Your task to perform on an android device: change notifications settings Image 0: 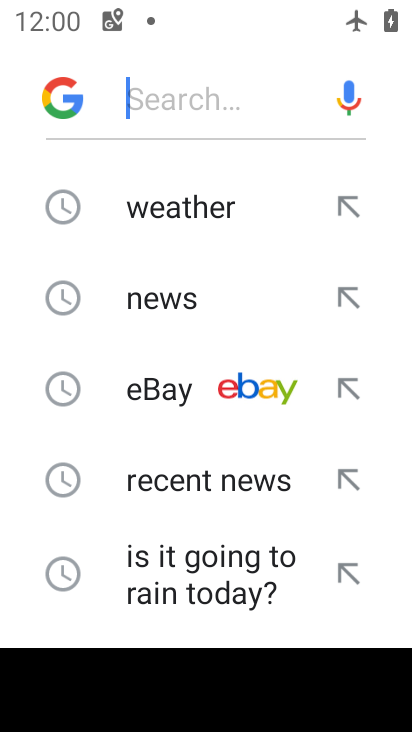
Step 0: press home button
Your task to perform on an android device: change notifications settings Image 1: 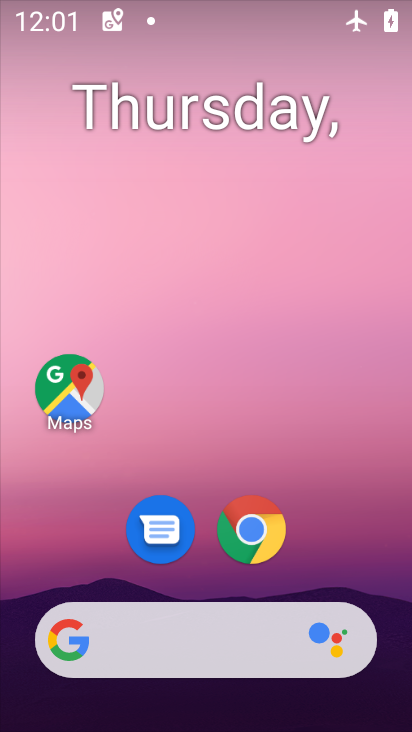
Step 1: drag from (394, 616) to (325, 142)
Your task to perform on an android device: change notifications settings Image 2: 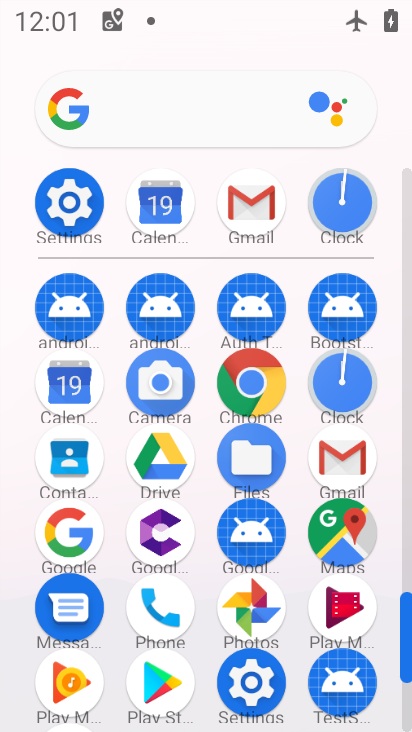
Step 2: click (408, 705)
Your task to perform on an android device: change notifications settings Image 3: 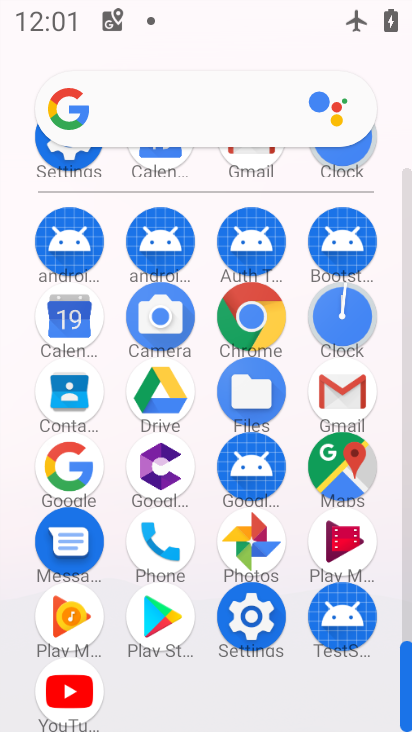
Step 3: click (249, 609)
Your task to perform on an android device: change notifications settings Image 4: 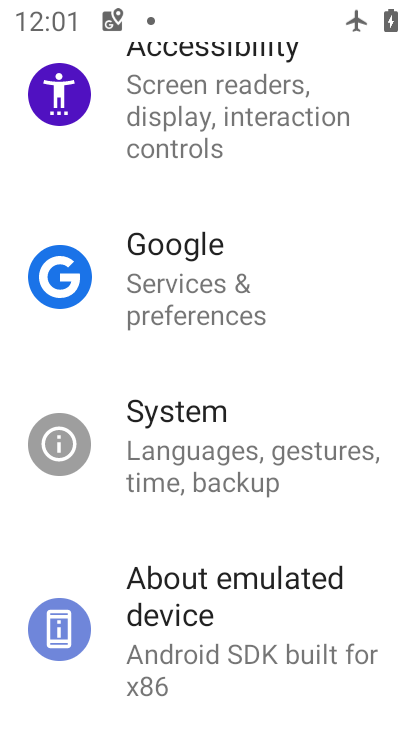
Step 4: drag from (344, 236) to (357, 593)
Your task to perform on an android device: change notifications settings Image 5: 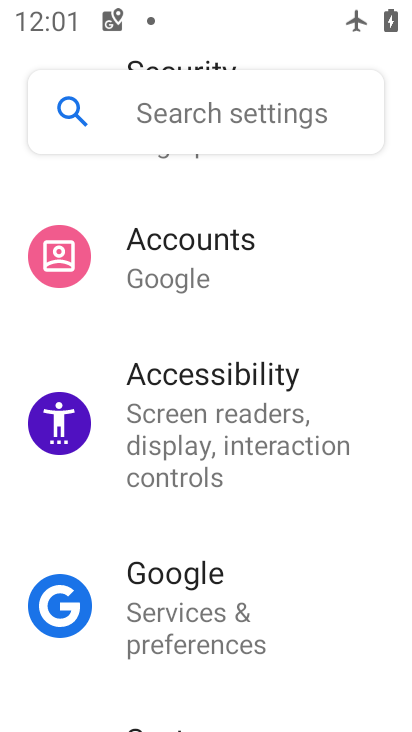
Step 5: drag from (372, 224) to (377, 591)
Your task to perform on an android device: change notifications settings Image 6: 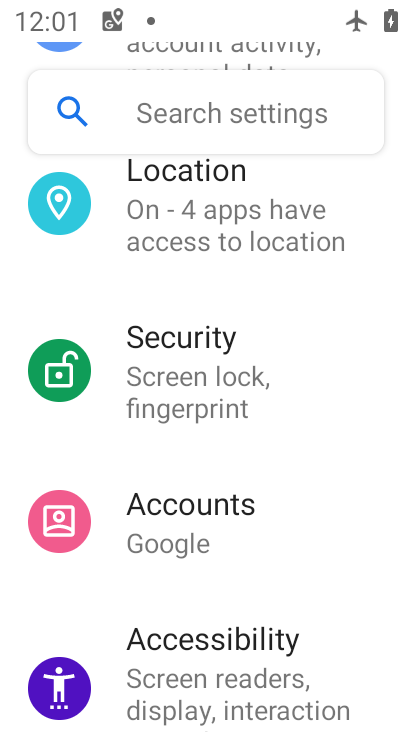
Step 6: drag from (357, 244) to (352, 569)
Your task to perform on an android device: change notifications settings Image 7: 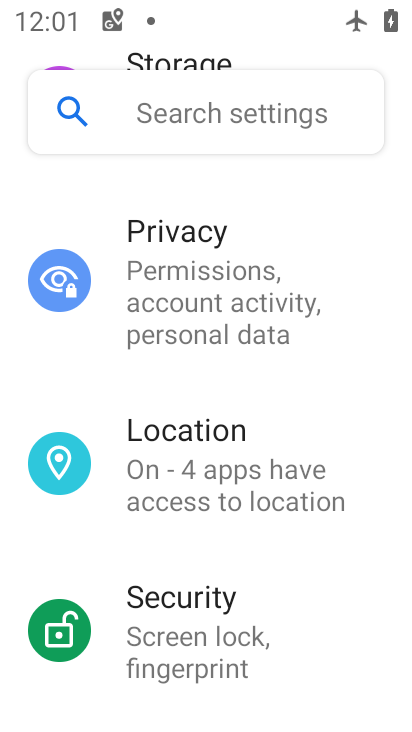
Step 7: drag from (335, 271) to (346, 578)
Your task to perform on an android device: change notifications settings Image 8: 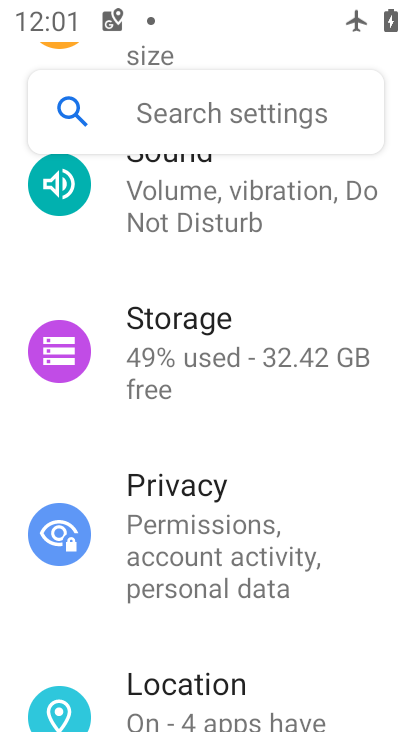
Step 8: drag from (342, 260) to (350, 595)
Your task to perform on an android device: change notifications settings Image 9: 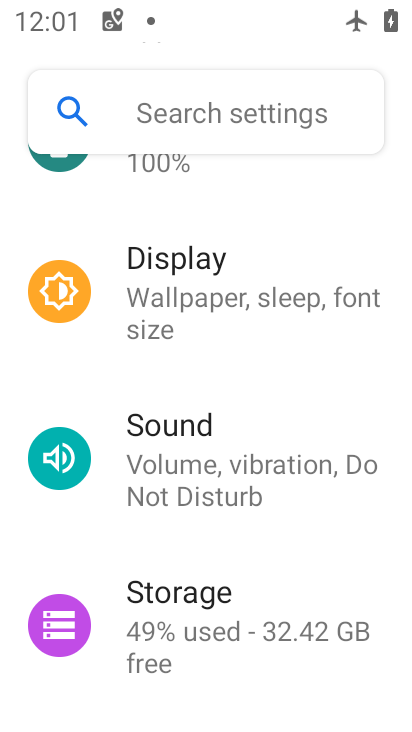
Step 9: drag from (341, 277) to (345, 595)
Your task to perform on an android device: change notifications settings Image 10: 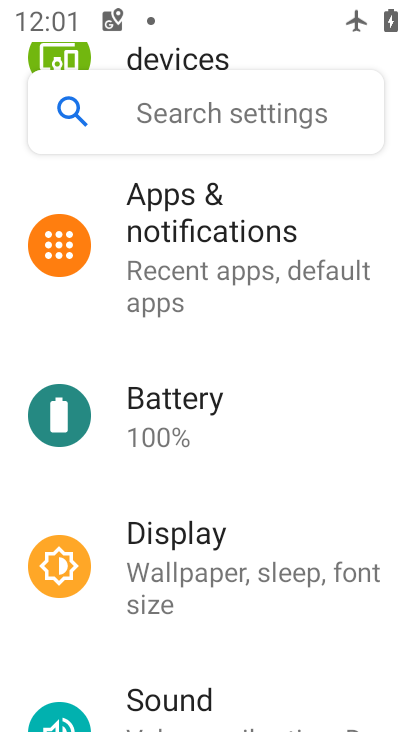
Step 10: click (186, 238)
Your task to perform on an android device: change notifications settings Image 11: 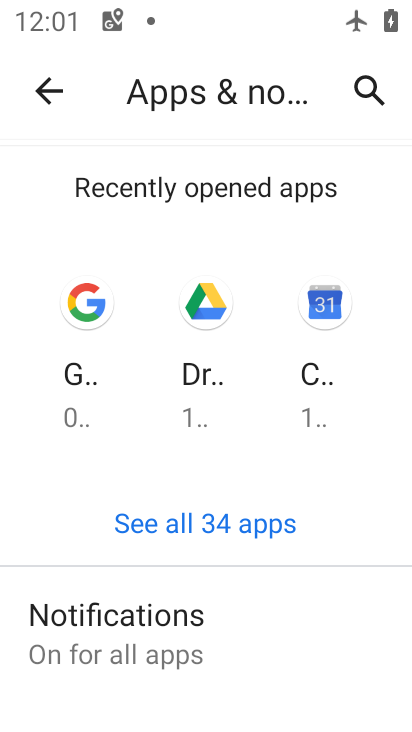
Step 11: click (145, 626)
Your task to perform on an android device: change notifications settings Image 12: 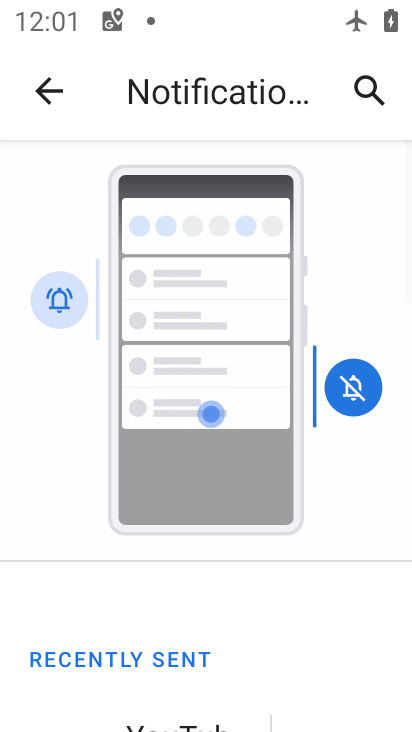
Step 12: drag from (335, 703) to (244, 164)
Your task to perform on an android device: change notifications settings Image 13: 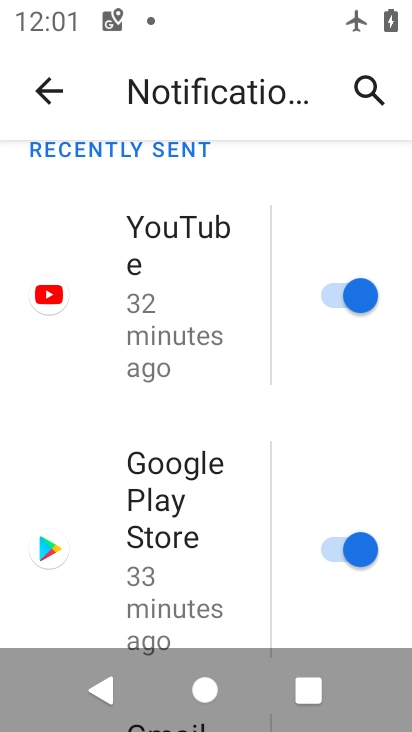
Step 13: drag from (263, 624) to (261, 142)
Your task to perform on an android device: change notifications settings Image 14: 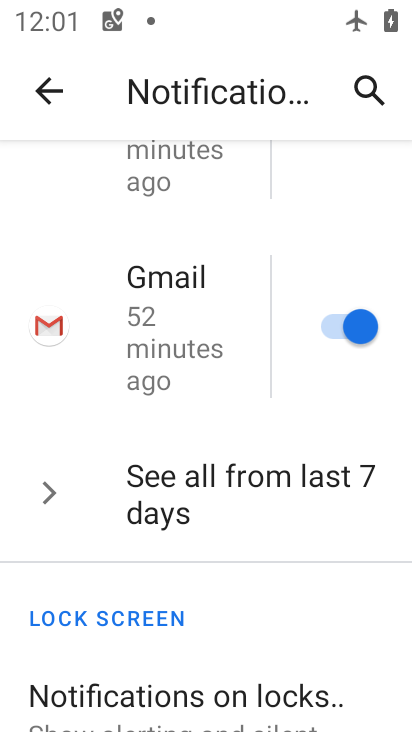
Step 14: drag from (269, 600) to (250, 184)
Your task to perform on an android device: change notifications settings Image 15: 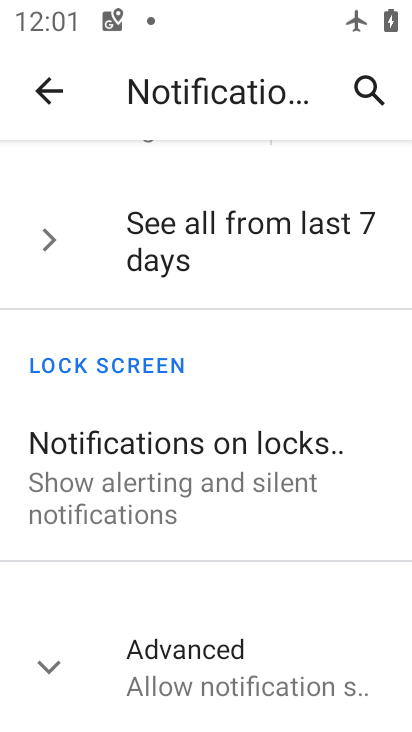
Step 15: click (45, 665)
Your task to perform on an android device: change notifications settings Image 16: 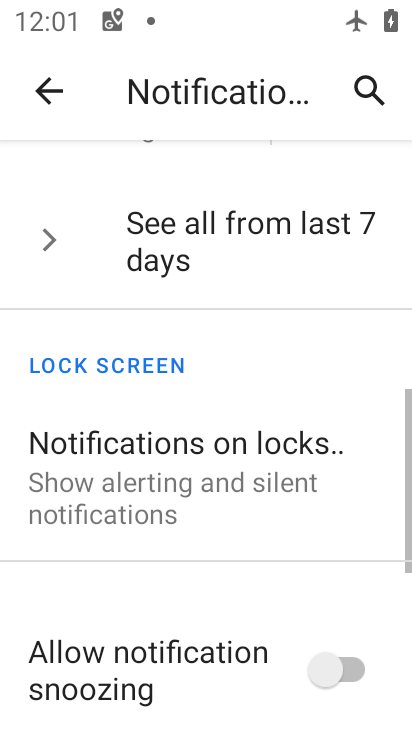
Step 16: task complete